Your task to perform on an android device: Open network settings Image 0: 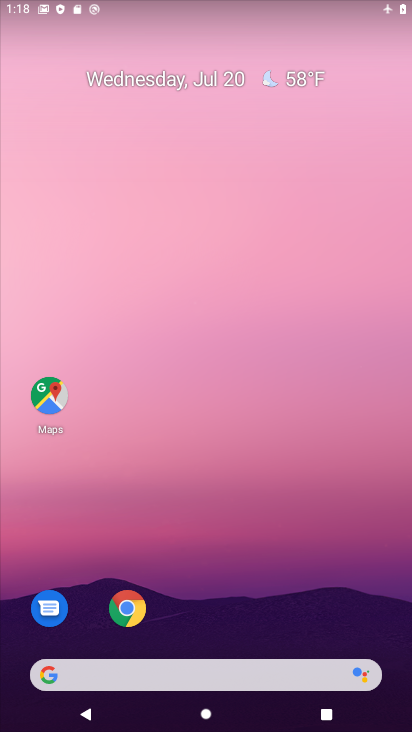
Step 0: drag from (227, 693) to (208, 96)
Your task to perform on an android device: Open network settings Image 1: 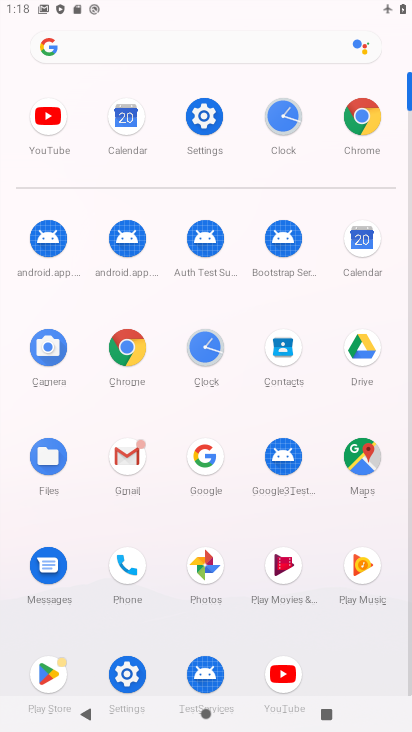
Step 1: click (204, 113)
Your task to perform on an android device: Open network settings Image 2: 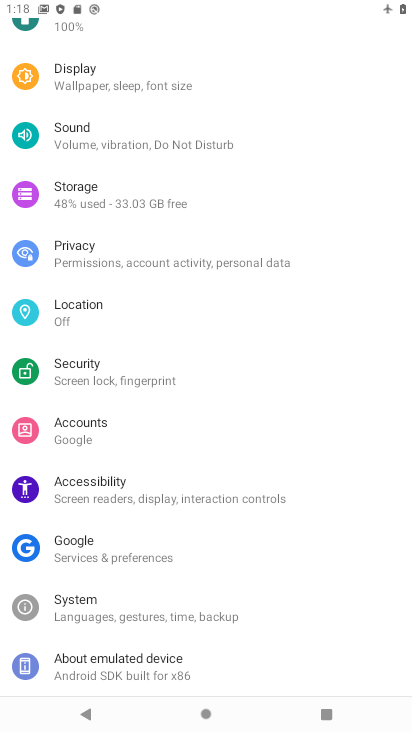
Step 2: drag from (117, 131) to (121, 657)
Your task to perform on an android device: Open network settings Image 3: 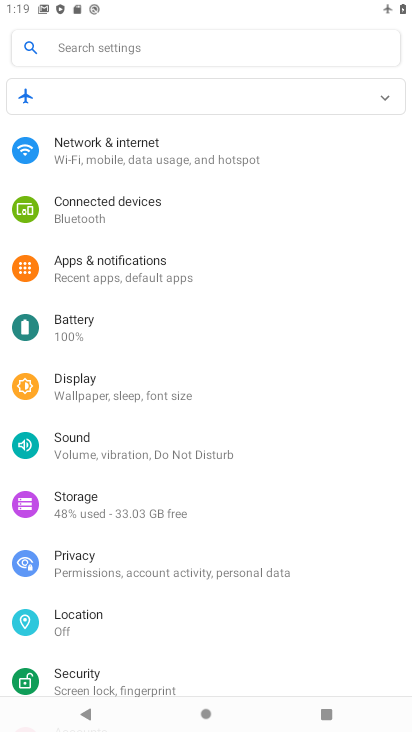
Step 3: click (95, 154)
Your task to perform on an android device: Open network settings Image 4: 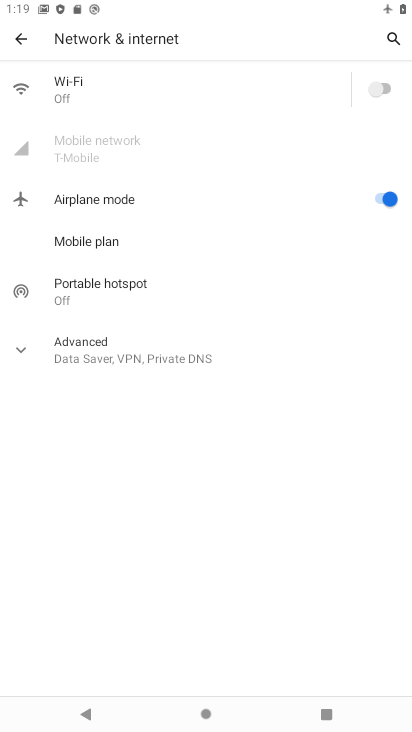
Step 4: task complete